Your task to perform on an android device: clear all cookies in the chrome app Image 0: 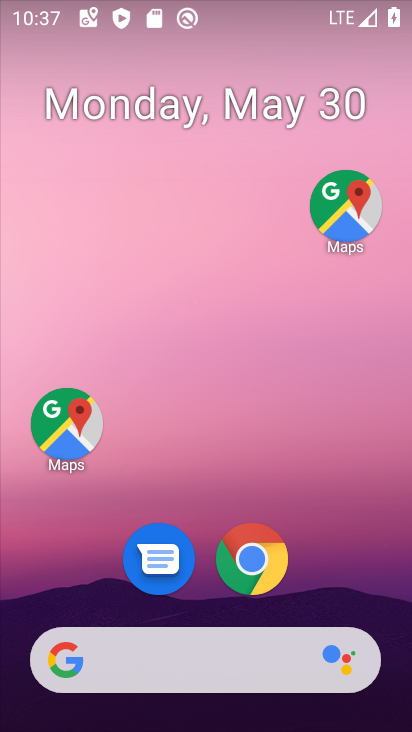
Step 0: click (242, 562)
Your task to perform on an android device: clear all cookies in the chrome app Image 1: 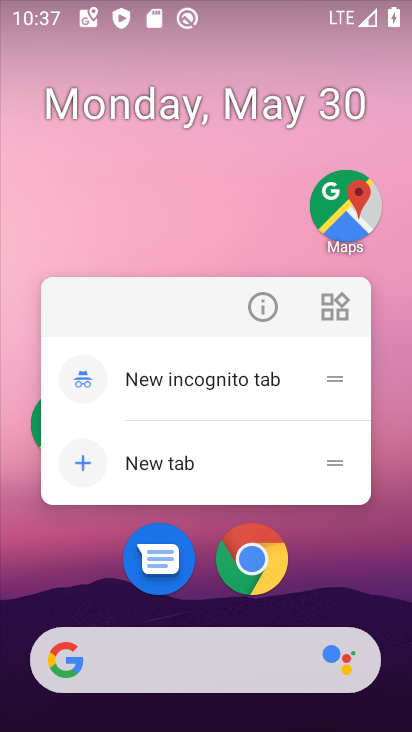
Step 1: click (251, 551)
Your task to perform on an android device: clear all cookies in the chrome app Image 2: 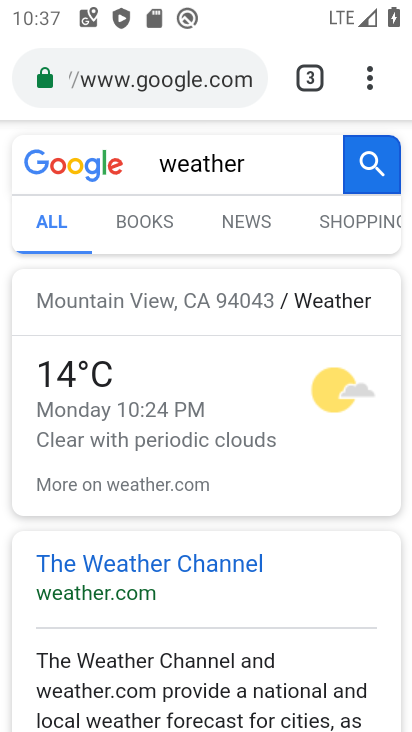
Step 2: drag from (375, 84) to (102, 438)
Your task to perform on an android device: clear all cookies in the chrome app Image 3: 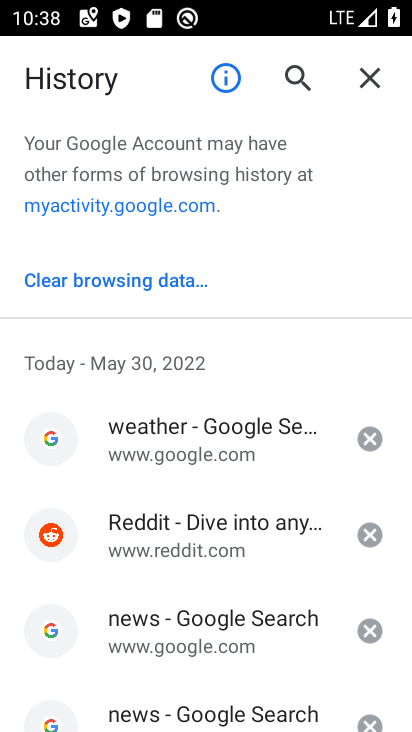
Step 3: click (149, 288)
Your task to perform on an android device: clear all cookies in the chrome app Image 4: 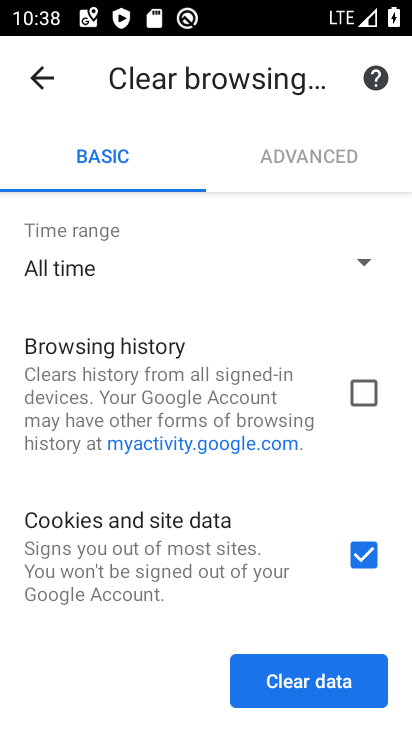
Step 4: click (320, 682)
Your task to perform on an android device: clear all cookies in the chrome app Image 5: 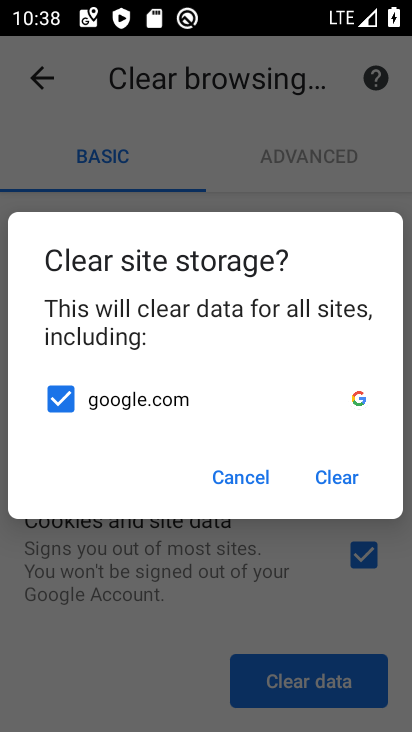
Step 5: click (340, 475)
Your task to perform on an android device: clear all cookies in the chrome app Image 6: 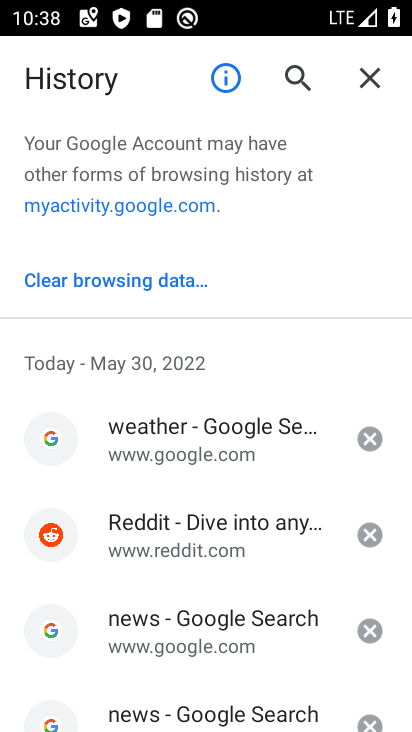
Step 6: task complete